Your task to perform on an android device: Open location settings Image 0: 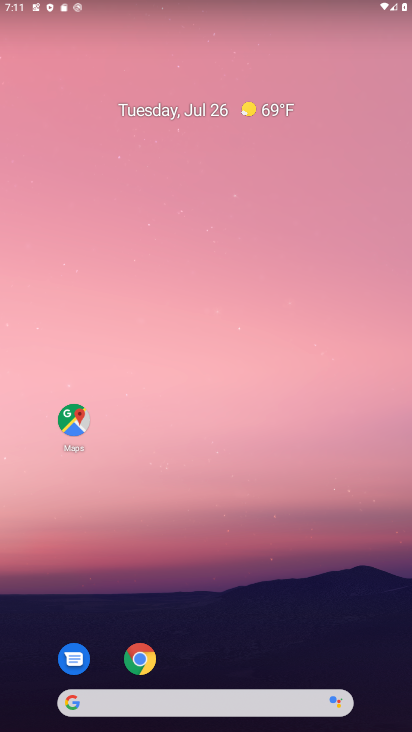
Step 0: drag from (247, 687) to (354, 118)
Your task to perform on an android device: Open location settings Image 1: 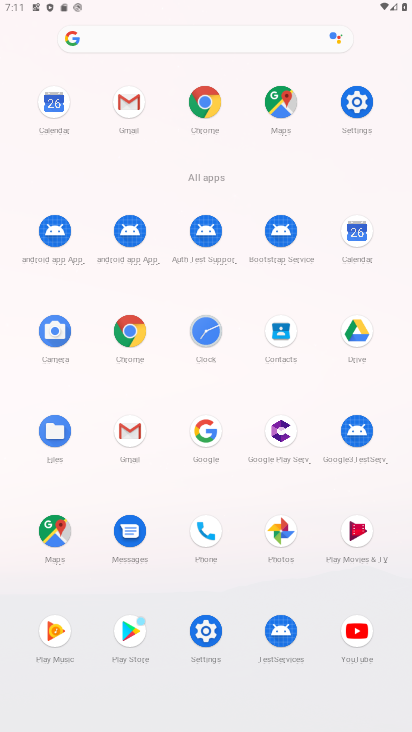
Step 1: click (364, 96)
Your task to perform on an android device: Open location settings Image 2: 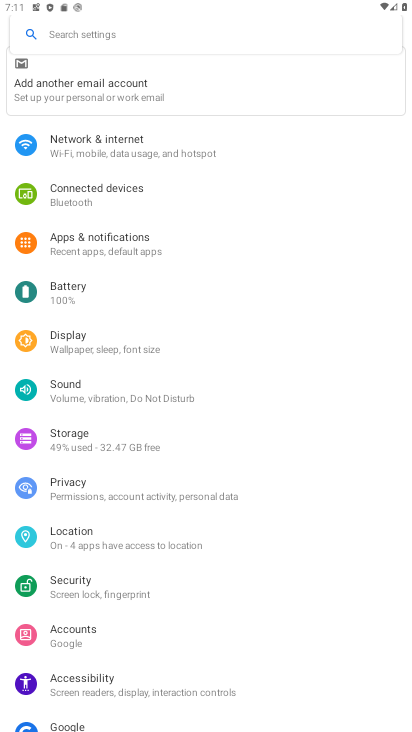
Step 2: click (47, 534)
Your task to perform on an android device: Open location settings Image 3: 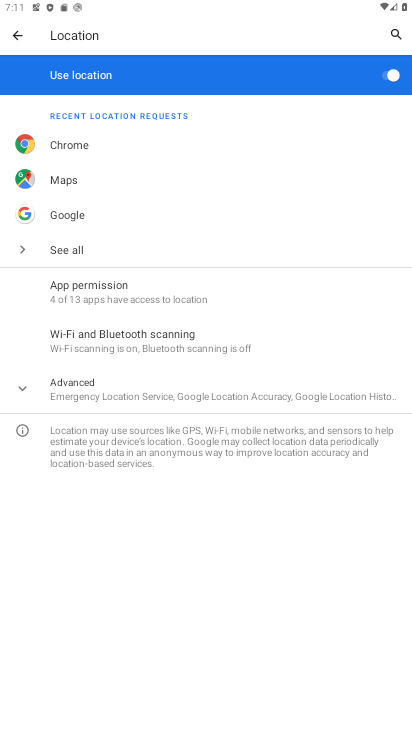
Step 3: task complete